Your task to perform on an android device: check google app version Image 0: 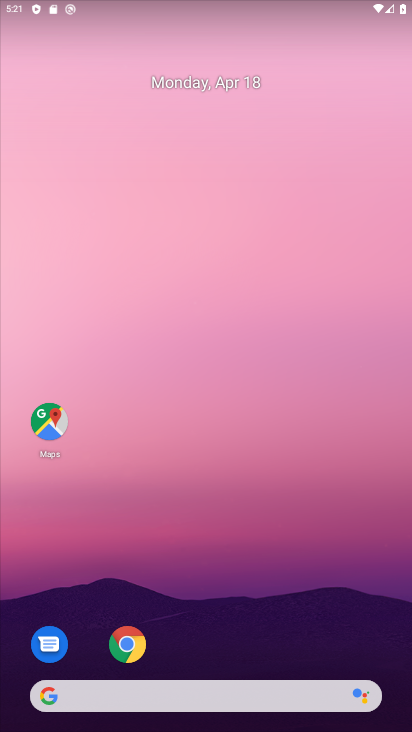
Step 0: press home button
Your task to perform on an android device: check google app version Image 1: 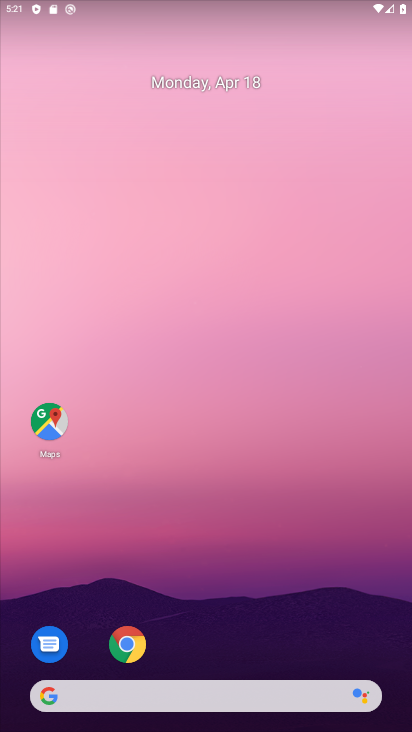
Step 1: drag from (193, 603) to (251, 159)
Your task to perform on an android device: check google app version Image 2: 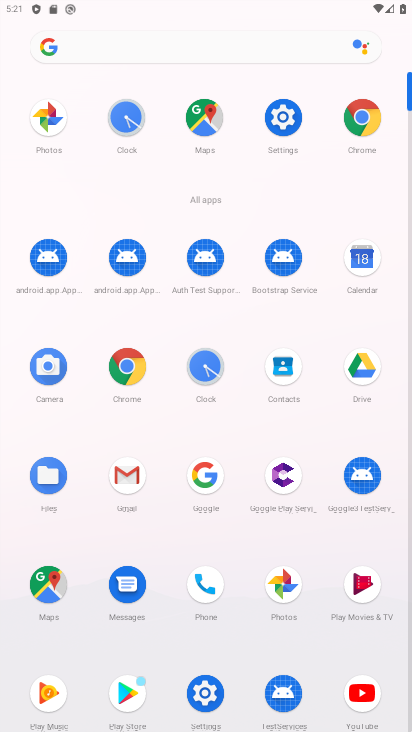
Step 2: click (204, 468)
Your task to perform on an android device: check google app version Image 3: 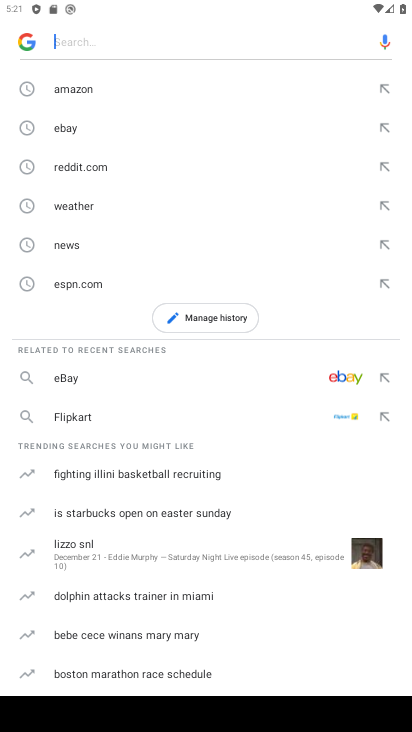
Step 3: press back button
Your task to perform on an android device: check google app version Image 4: 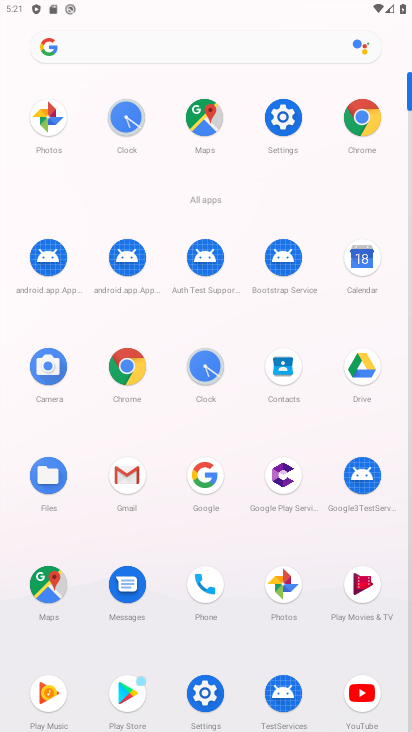
Step 4: click (201, 472)
Your task to perform on an android device: check google app version Image 5: 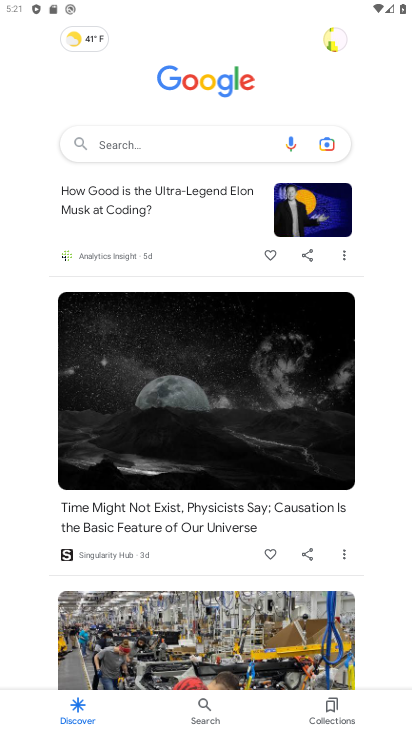
Step 5: click (327, 39)
Your task to perform on an android device: check google app version Image 6: 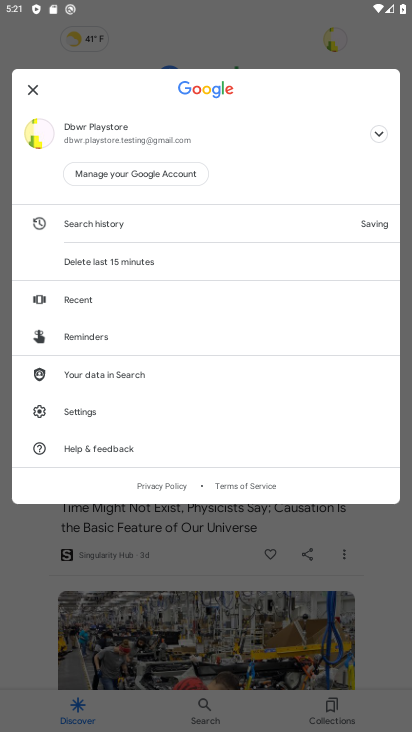
Step 6: click (84, 409)
Your task to perform on an android device: check google app version Image 7: 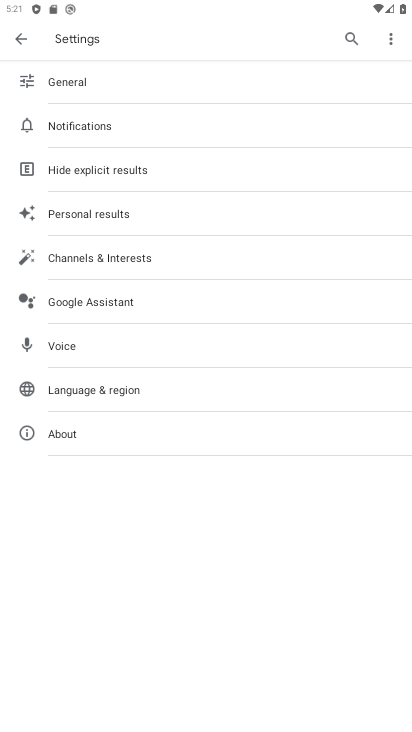
Step 7: click (91, 429)
Your task to perform on an android device: check google app version Image 8: 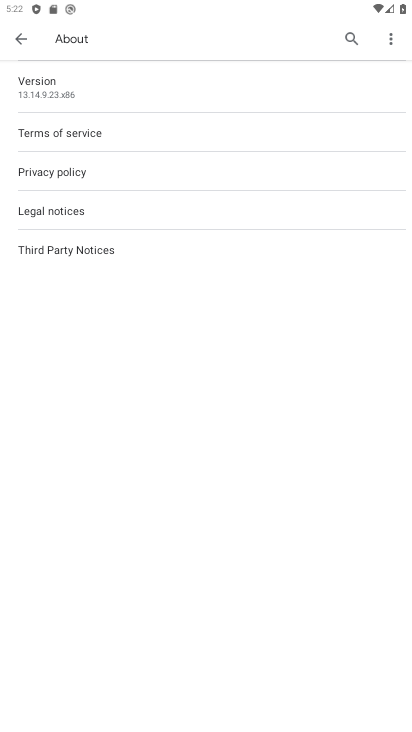
Step 8: click (92, 89)
Your task to perform on an android device: check google app version Image 9: 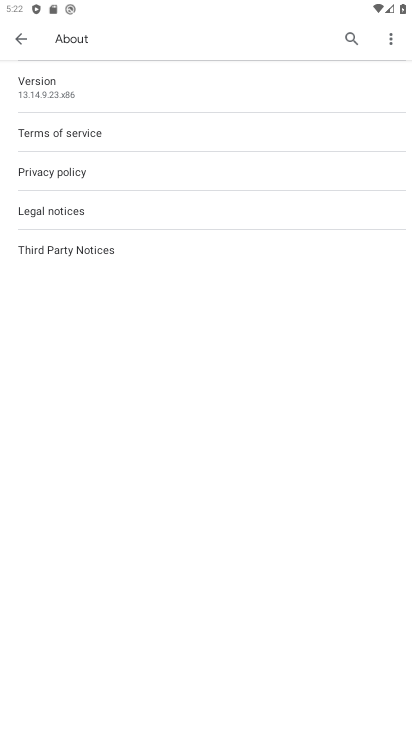
Step 9: task complete